Your task to perform on an android device: Open internet settings Image 0: 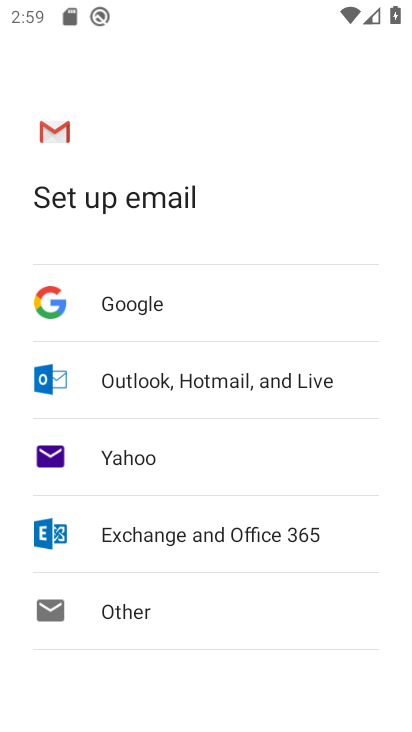
Step 0: press back button
Your task to perform on an android device: Open internet settings Image 1: 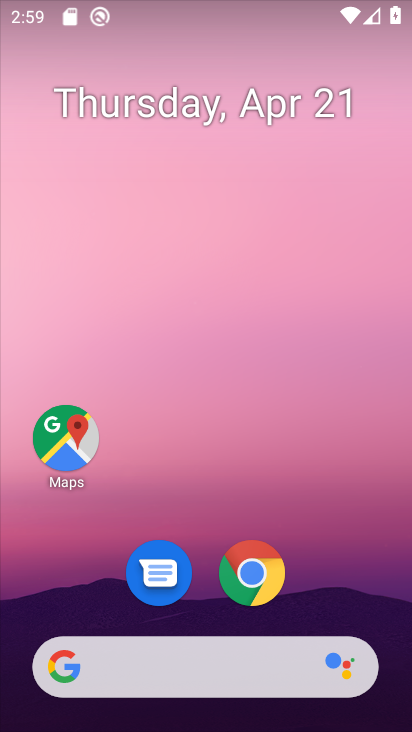
Step 1: click (257, 346)
Your task to perform on an android device: Open internet settings Image 2: 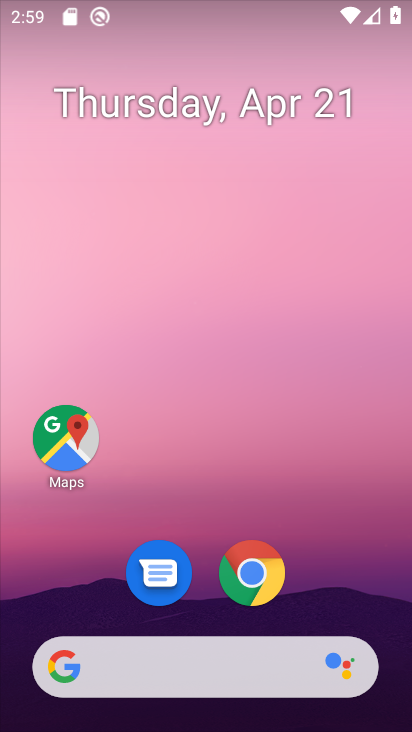
Step 2: drag from (246, 514) to (343, 210)
Your task to perform on an android device: Open internet settings Image 3: 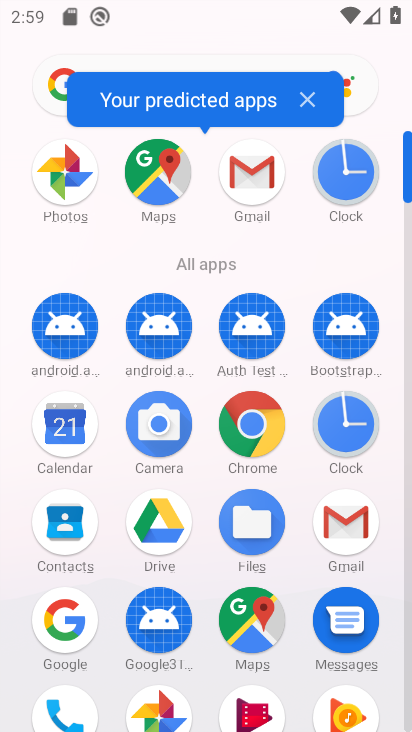
Step 3: drag from (240, 502) to (379, 189)
Your task to perform on an android device: Open internet settings Image 4: 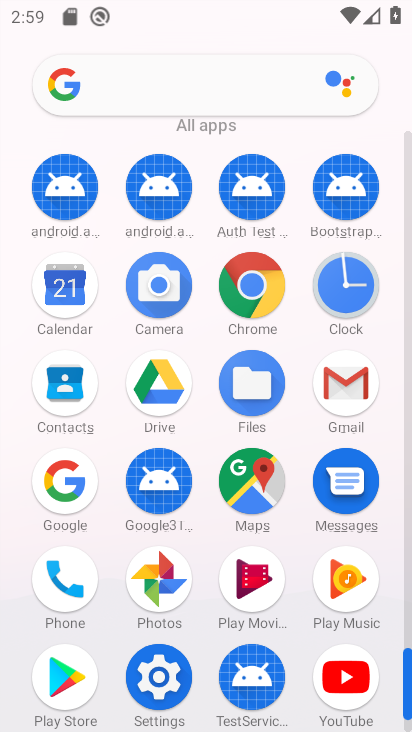
Step 4: click (161, 690)
Your task to perform on an android device: Open internet settings Image 5: 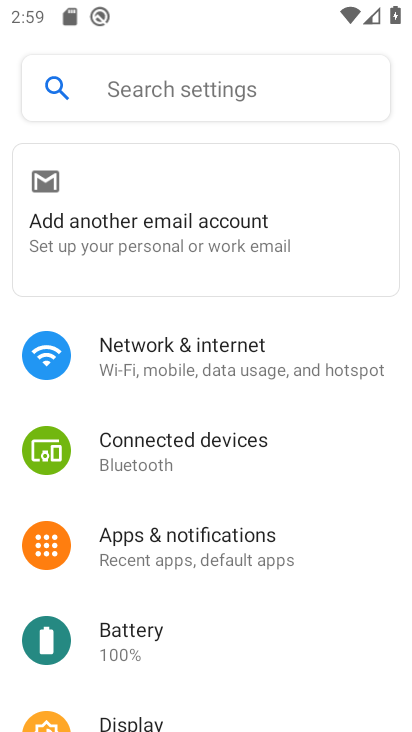
Step 5: click (280, 382)
Your task to perform on an android device: Open internet settings Image 6: 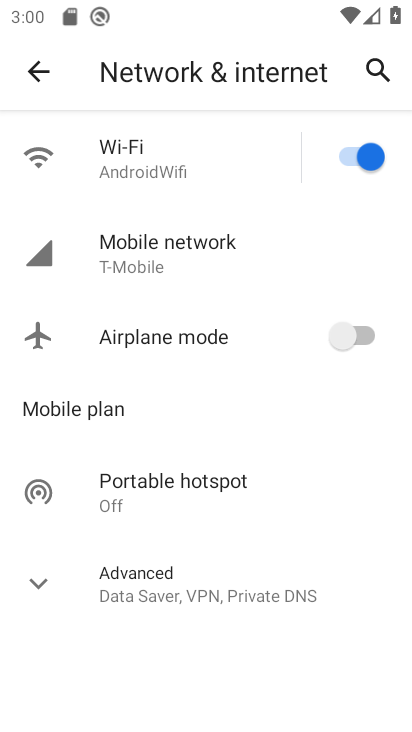
Step 6: task complete